Your task to perform on an android device: Go to CNN.com Image 0: 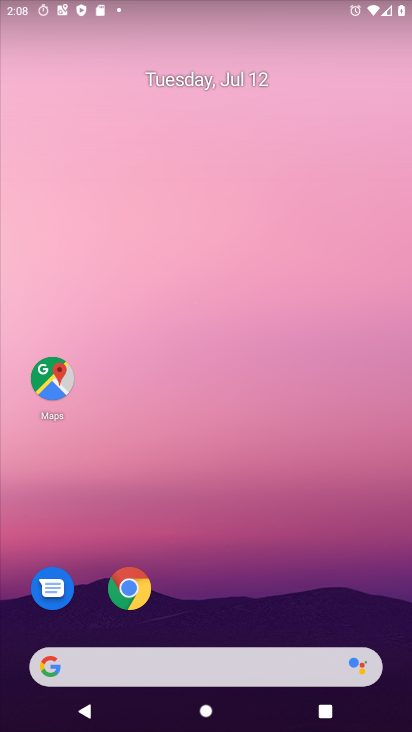
Step 0: click (89, 11)
Your task to perform on an android device: Go to CNN.com Image 1: 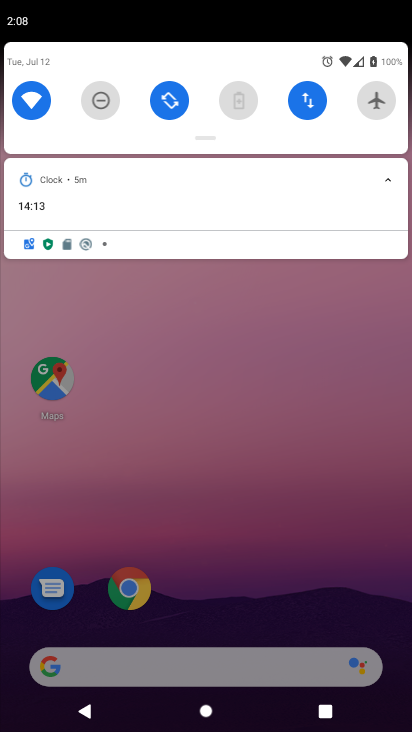
Step 1: drag from (198, 573) to (291, 143)
Your task to perform on an android device: Go to CNN.com Image 2: 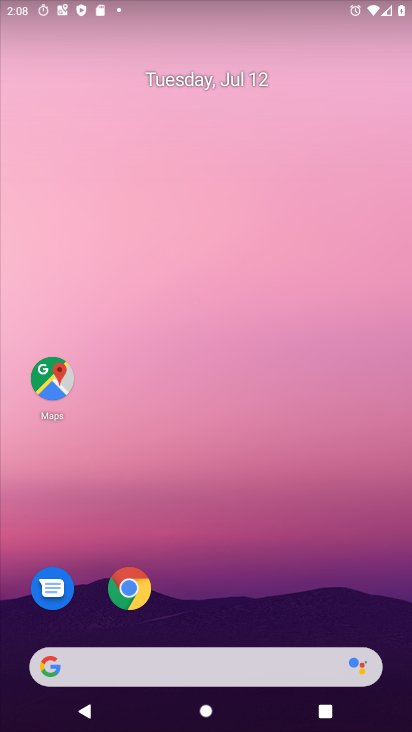
Step 2: drag from (206, 566) to (206, 44)
Your task to perform on an android device: Go to CNN.com Image 3: 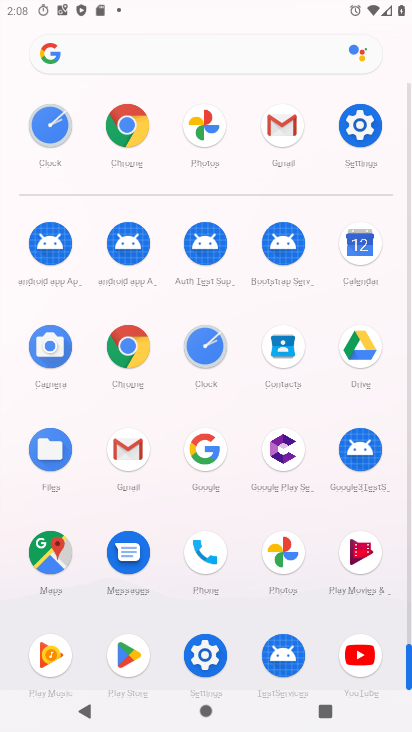
Step 3: click (131, 142)
Your task to perform on an android device: Go to CNN.com Image 4: 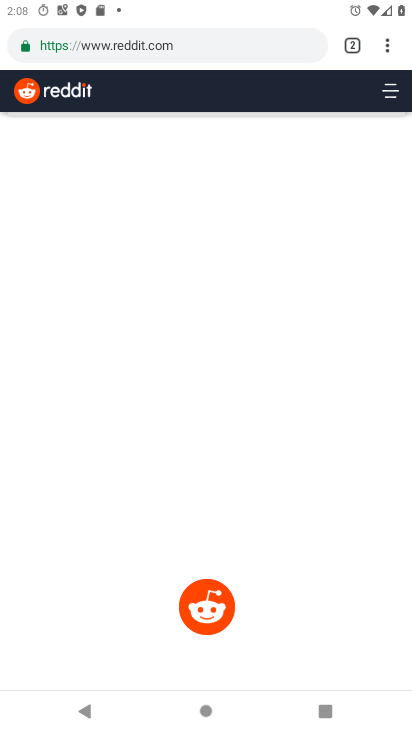
Step 4: click (234, 49)
Your task to perform on an android device: Go to CNN.com Image 5: 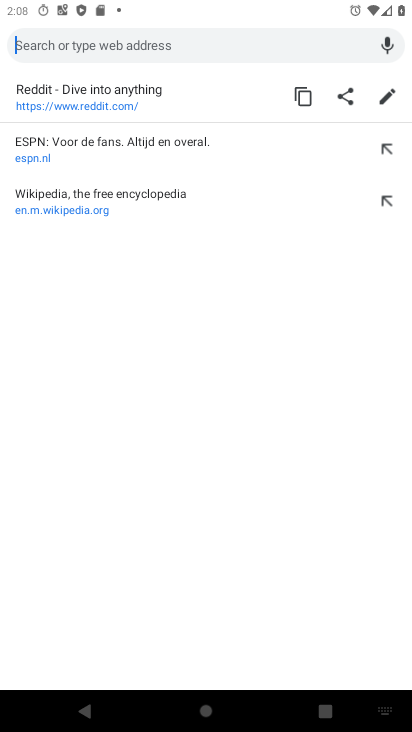
Step 5: type "cnn"
Your task to perform on an android device: Go to CNN.com Image 6: 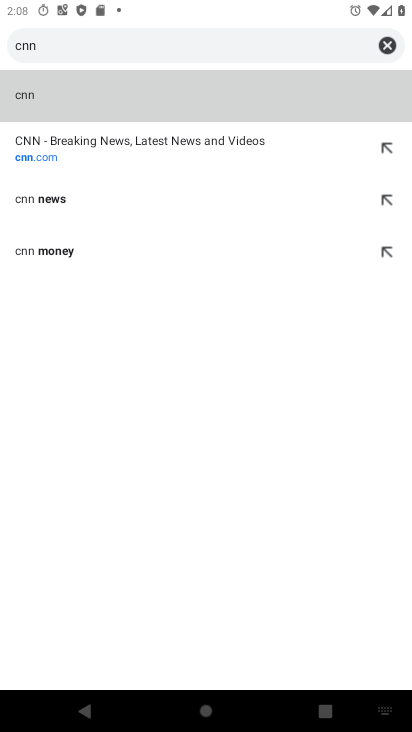
Step 6: click (36, 108)
Your task to perform on an android device: Go to CNN.com Image 7: 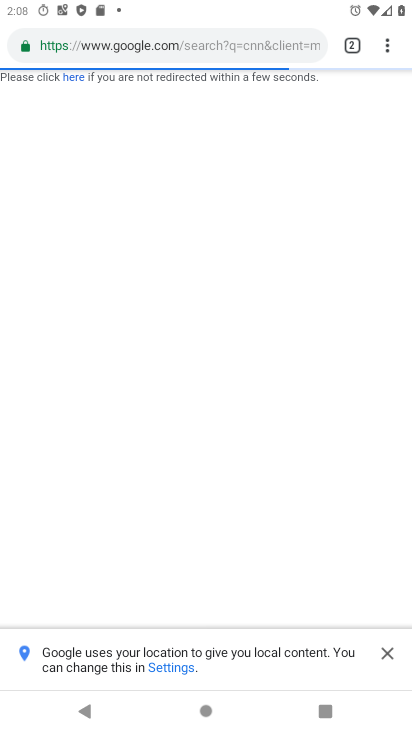
Step 7: drag from (274, 599) to (344, 153)
Your task to perform on an android device: Go to CNN.com Image 8: 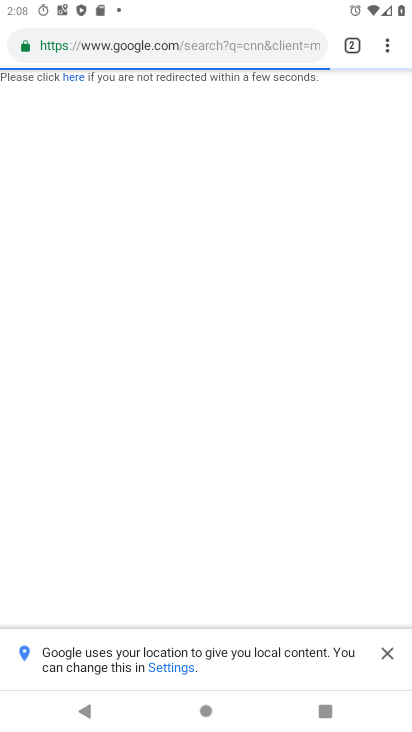
Step 8: drag from (293, 180) to (230, 518)
Your task to perform on an android device: Go to CNN.com Image 9: 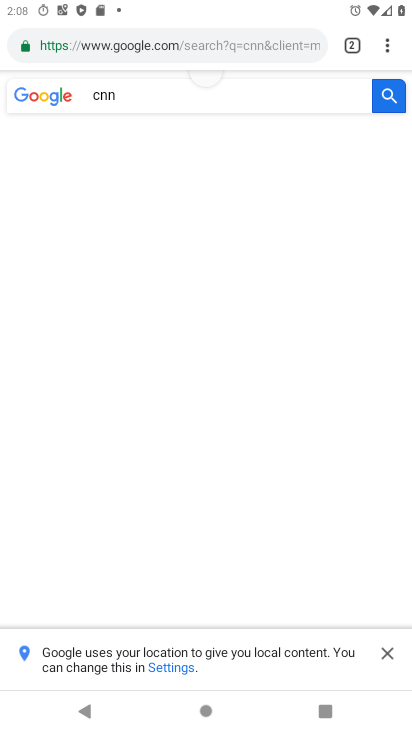
Step 9: drag from (229, 499) to (270, 172)
Your task to perform on an android device: Go to CNN.com Image 10: 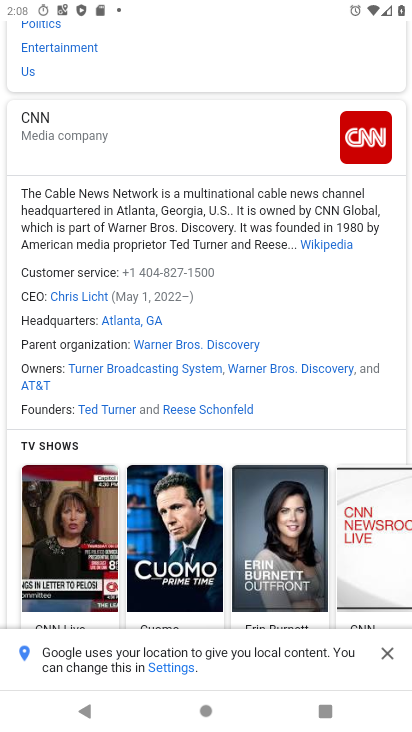
Step 10: click (68, 128)
Your task to perform on an android device: Go to CNN.com Image 11: 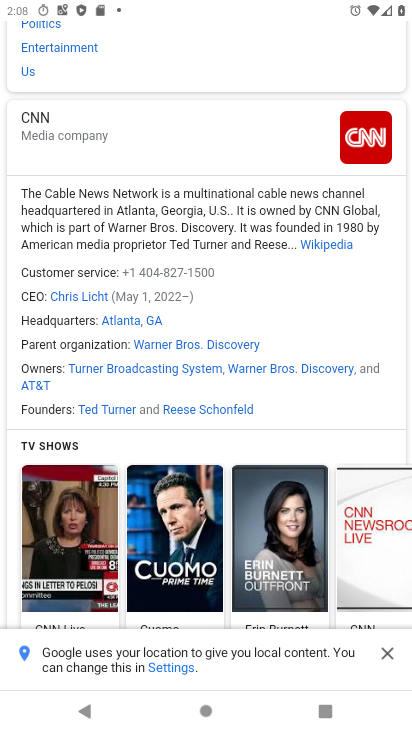
Step 11: drag from (207, 235) to (226, 590)
Your task to perform on an android device: Go to CNN.com Image 12: 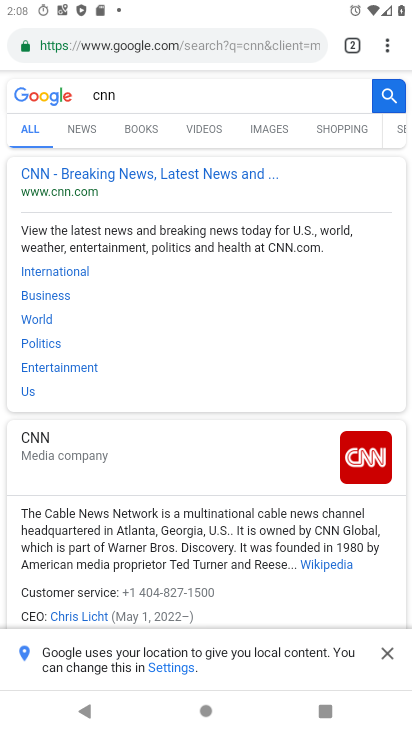
Step 12: drag from (147, 267) to (240, 576)
Your task to perform on an android device: Go to CNN.com Image 13: 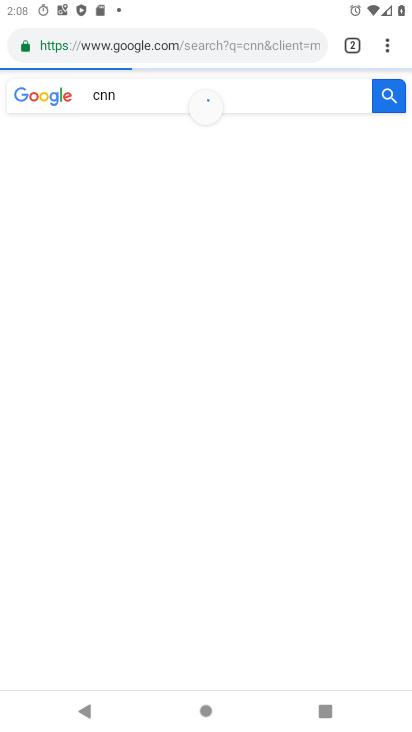
Step 13: click (81, 174)
Your task to perform on an android device: Go to CNN.com Image 14: 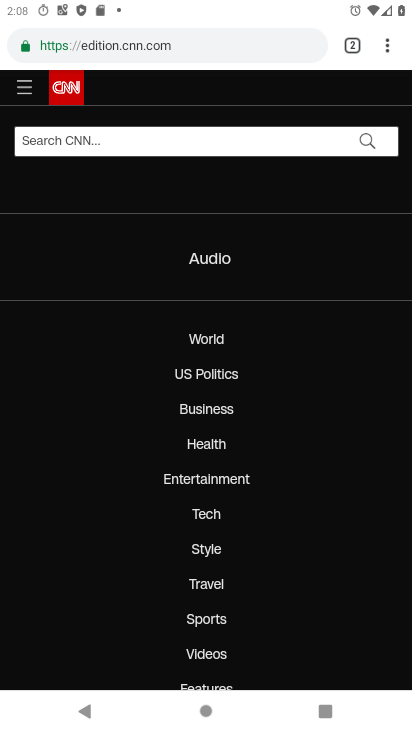
Step 14: task complete